Your task to perform on an android device: star an email in the gmail app Image 0: 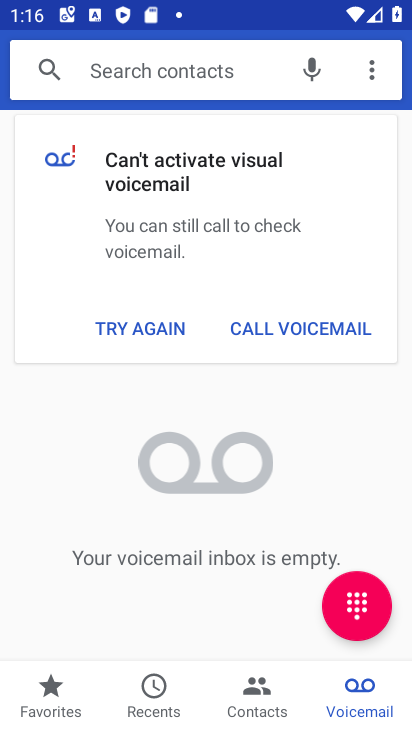
Step 0: press home button
Your task to perform on an android device: star an email in the gmail app Image 1: 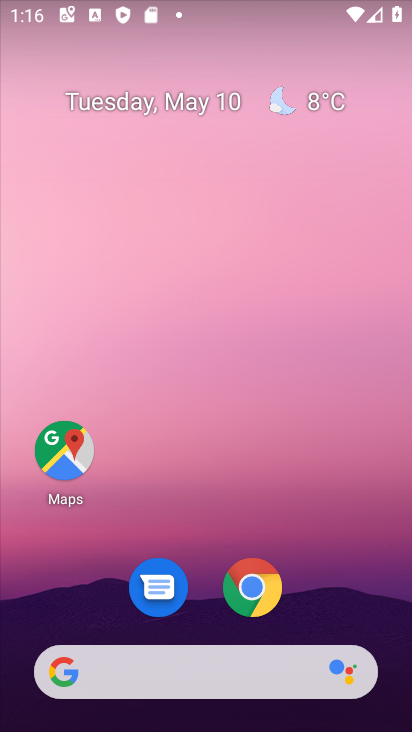
Step 1: click (326, 344)
Your task to perform on an android device: star an email in the gmail app Image 2: 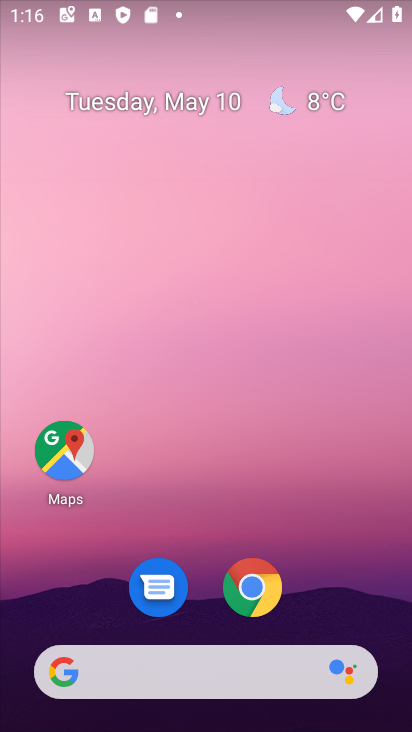
Step 2: drag from (397, 674) to (402, 340)
Your task to perform on an android device: star an email in the gmail app Image 3: 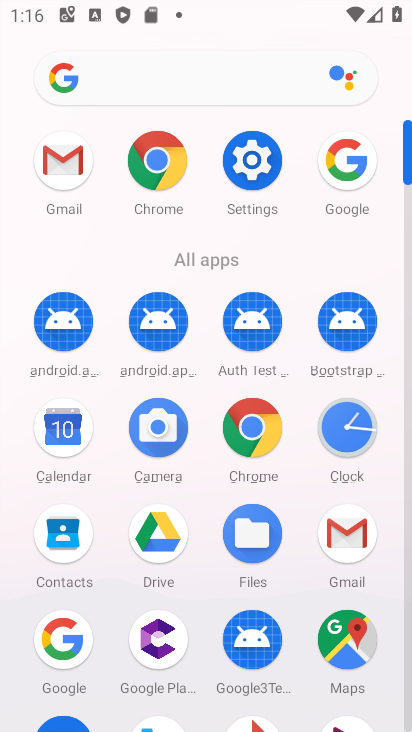
Step 3: click (354, 528)
Your task to perform on an android device: star an email in the gmail app Image 4: 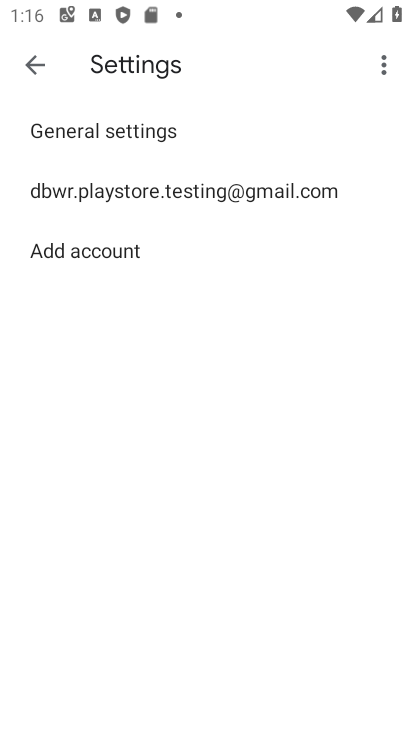
Step 4: click (34, 64)
Your task to perform on an android device: star an email in the gmail app Image 5: 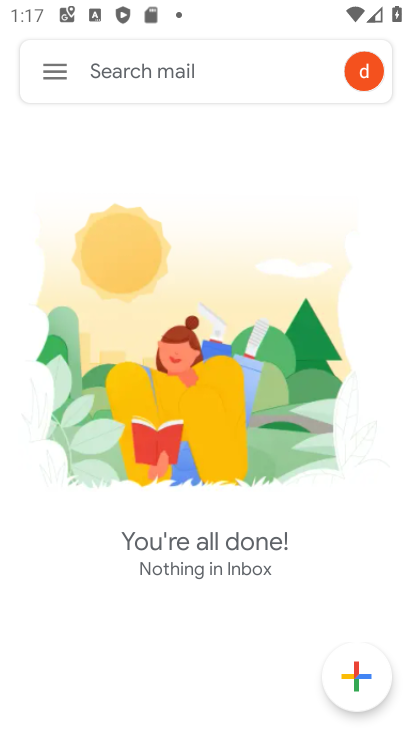
Step 5: task complete